Your task to perform on an android device: turn off translation in the chrome app Image 0: 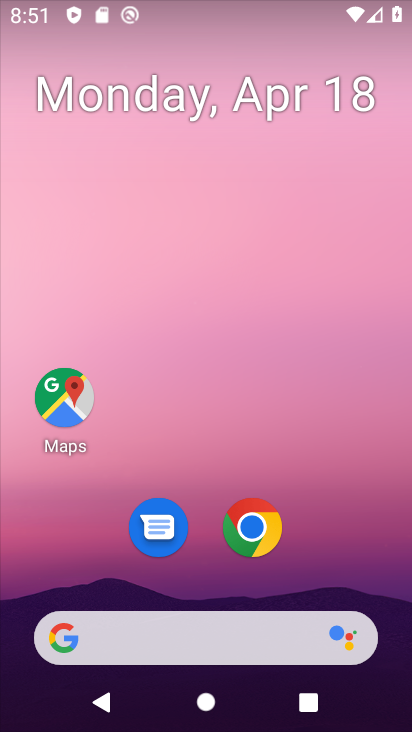
Step 0: drag from (295, 561) to (338, 72)
Your task to perform on an android device: turn off translation in the chrome app Image 1: 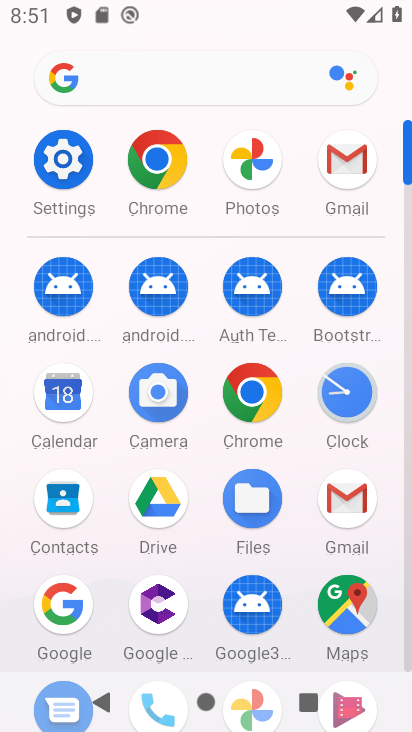
Step 1: click (249, 386)
Your task to perform on an android device: turn off translation in the chrome app Image 2: 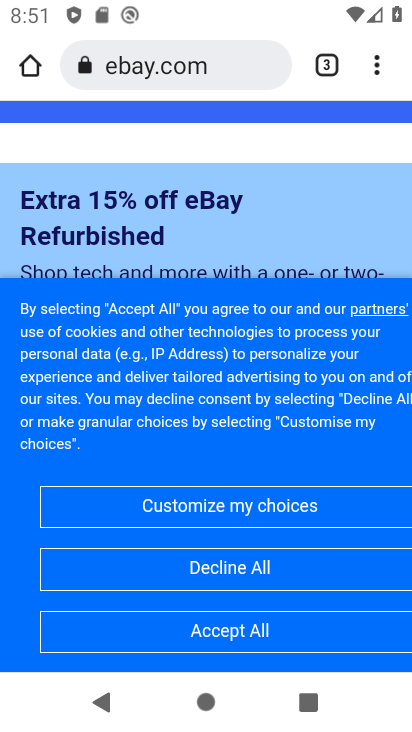
Step 2: drag from (372, 63) to (252, 508)
Your task to perform on an android device: turn off translation in the chrome app Image 3: 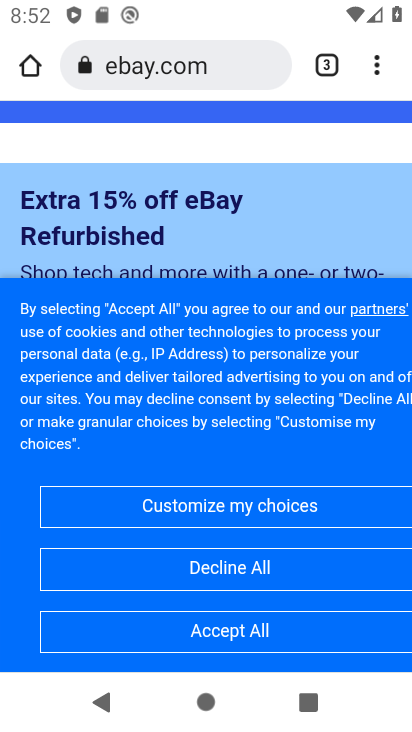
Step 3: drag from (379, 66) to (223, 541)
Your task to perform on an android device: turn off translation in the chrome app Image 4: 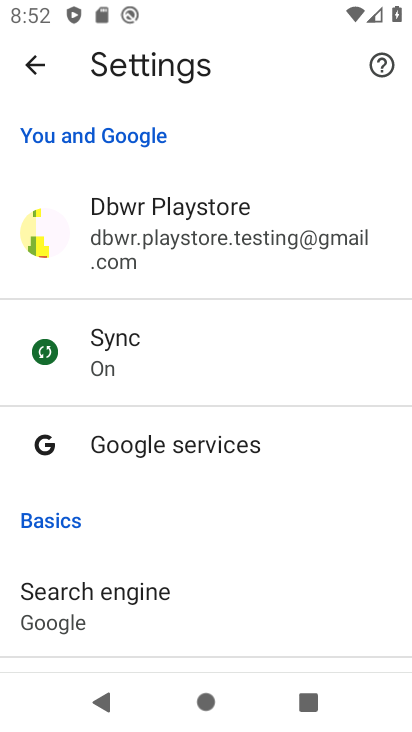
Step 4: drag from (263, 578) to (279, 94)
Your task to perform on an android device: turn off translation in the chrome app Image 5: 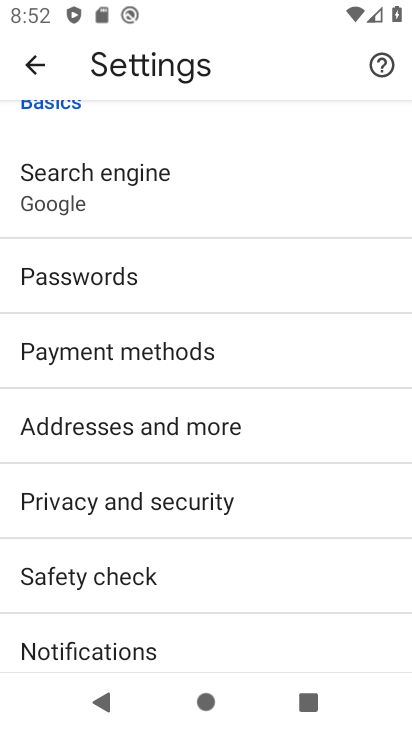
Step 5: drag from (294, 592) to (308, 231)
Your task to perform on an android device: turn off translation in the chrome app Image 6: 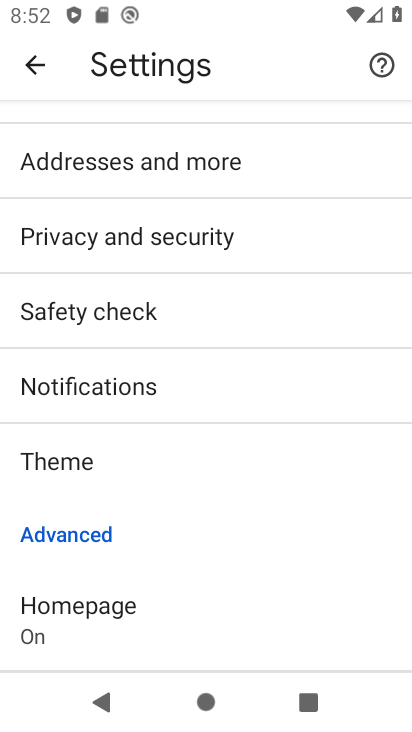
Step 6: drag from (285, 575) to (303, 217)
Your task to perform on an android device: turn off translation in the chrome app Image 7: 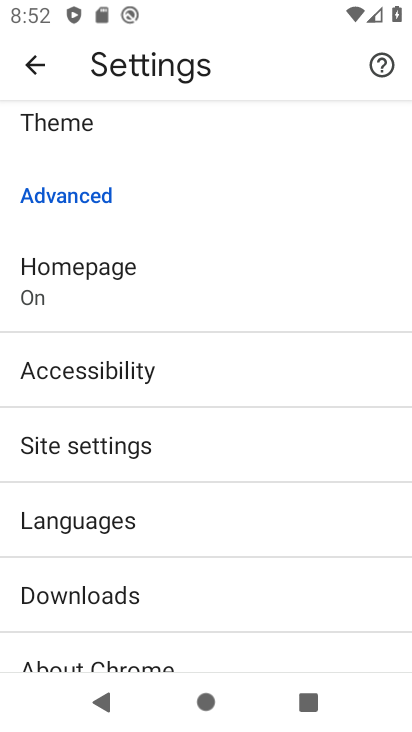
Step 7: click (92, 515)
Your task to perform on an android device: turn off translation in the chrome app Image 8: 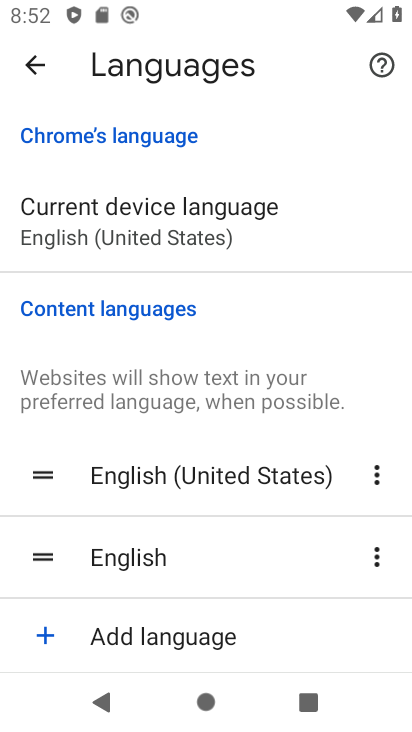
Step 8: drag from (332, 645) to (337, 308)
Your task to perform on an android device: turn off translation in the chrome app Image 9: 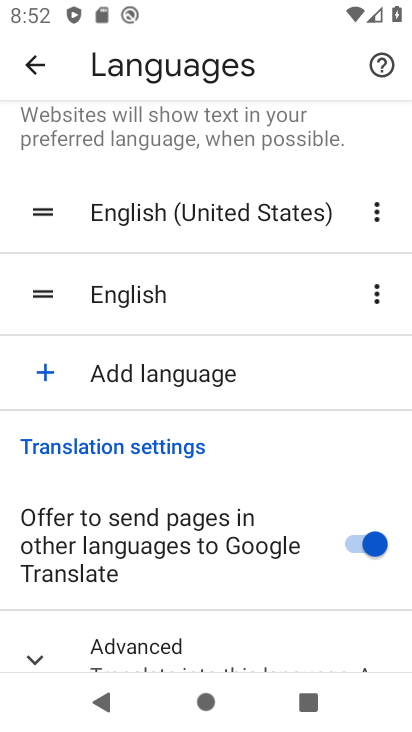
Step 9: click (355, 542)
Your task to perform on an android device: turn off translation in the chrome app Image 10: 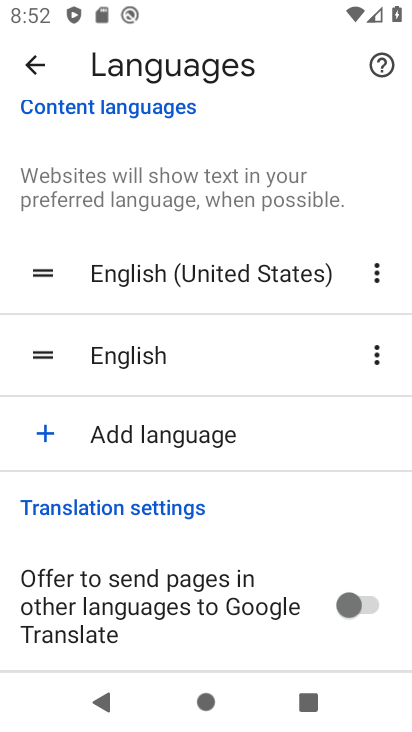
Step 10: task complete